Your task to perform on an android device: snooze an email in the gmail app Image 0: 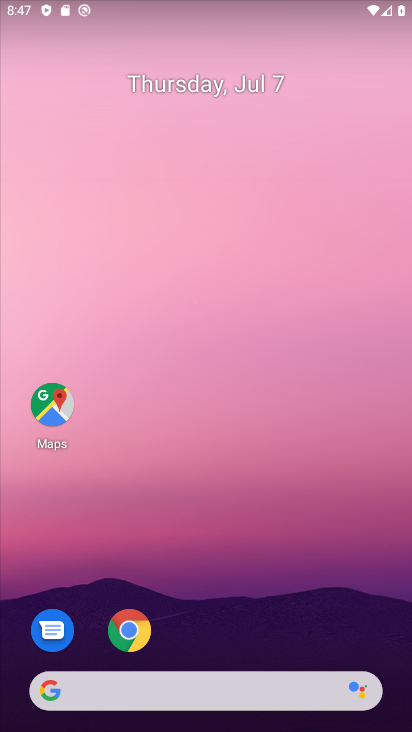
Step 0: drag from (291, 524) to (260, 156)
Your task to perform on an android device: snooze an email in the gmail app Image 1: 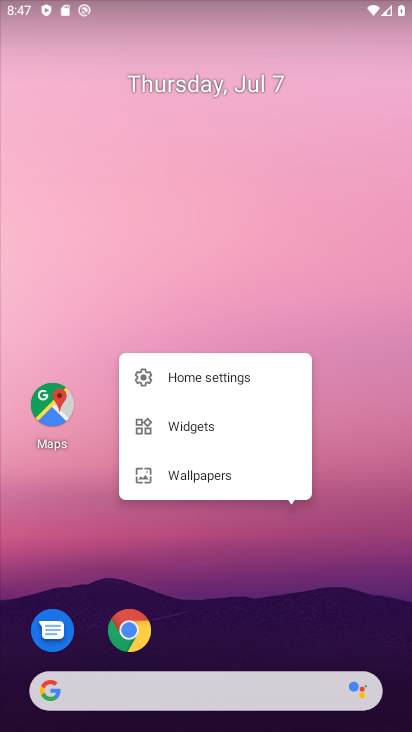
Step 1: click (365, 537)
Your task to perform on an android device: snooze an email in the gmail app Image 2: 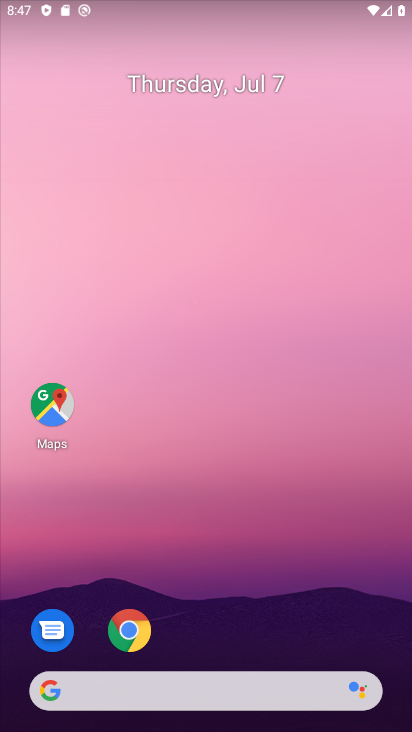
Step 2: drag from (358, 633) to (355, 99)
Your task to perform on an android device: snooze an email in the gmail app Image 3: 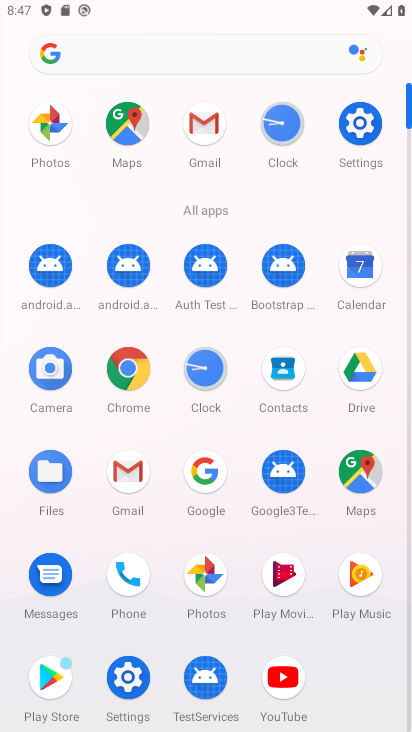
Step 3: click (201, 125)
Your task to perform on an android device: snooze an email in the gmail app Image 4: 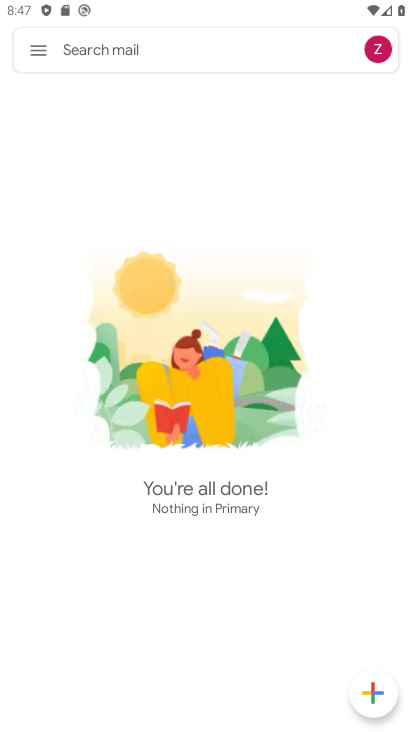
Step 4: task complete